Your task to perform on an android device: open wifi settings Image 0: 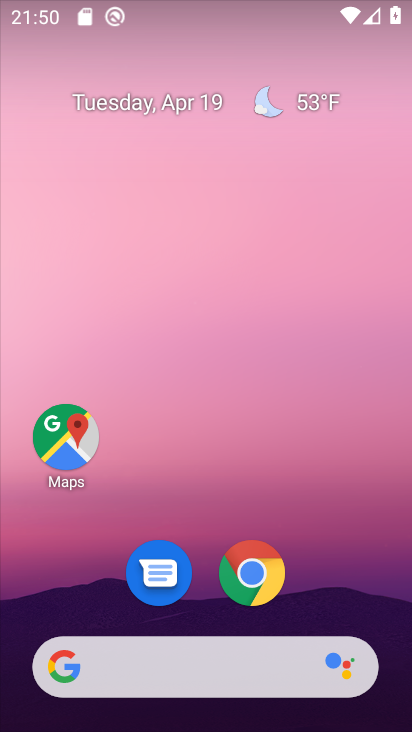
Step 0: drag from (206, 602) to (255, 74)
Your task to perform on an android device: open wifi settings Image 1: 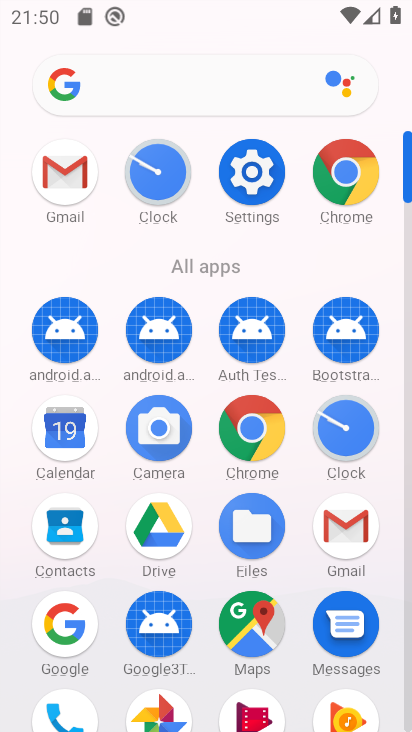
Step 1: click (247, 168)
Your task to perform on an android device: open wifi settings Image 2: 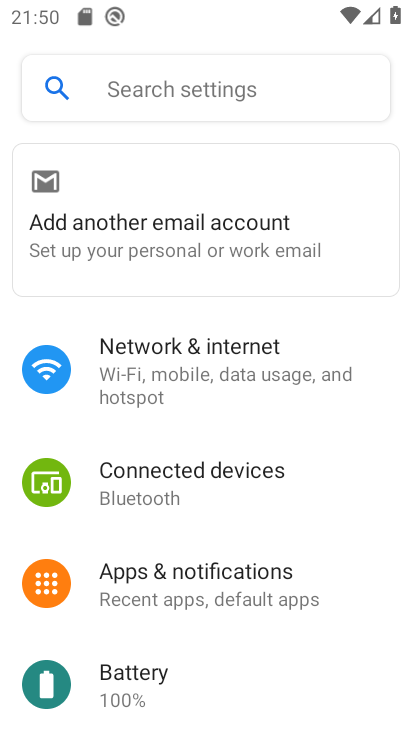
Step 2: click (201, 385)
Your task to perform on an android device: open wifi settings Image 3: 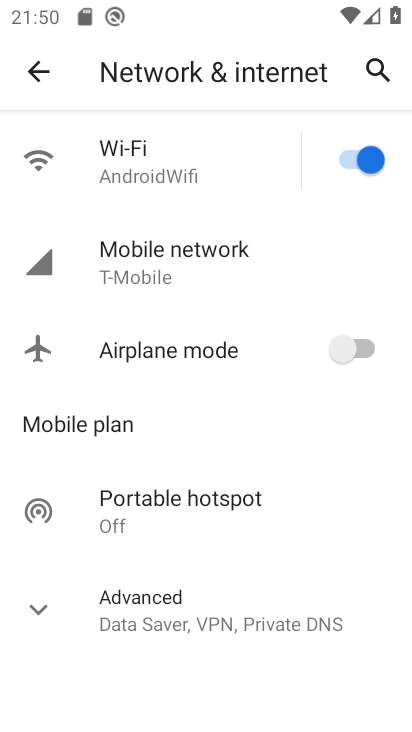
Step 3: click (219, 153)
Your task to perform on an android device: open wifi settings Image 4: 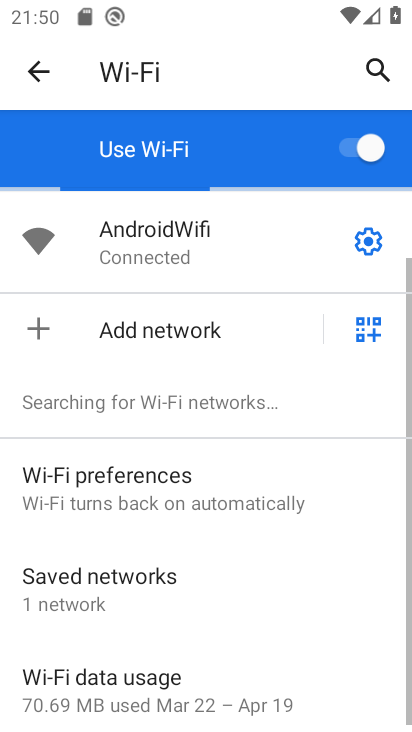
Step 4: task complete